Your task to perform on an android device: set an alarm Image 0: 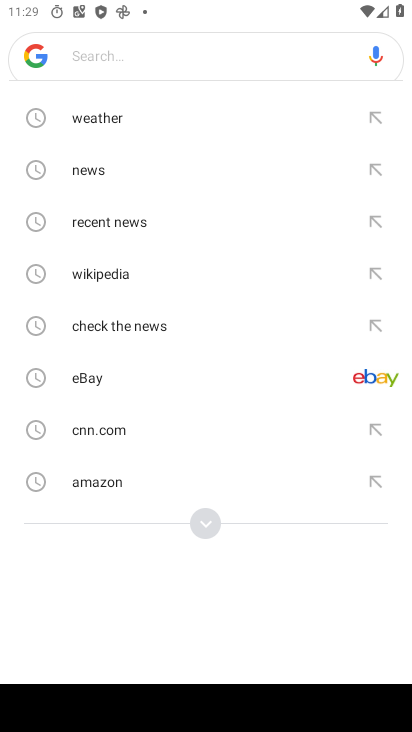
Step 0: press home button
Your task to perform on an android device: set an alarm Image 1: 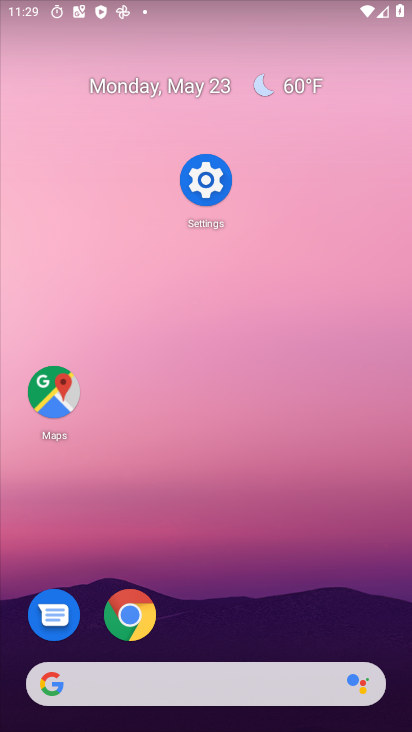
Step 1: drag from (333, 585) to (315, 51)
Your task to perform on an android device: set an alarm Image 2: 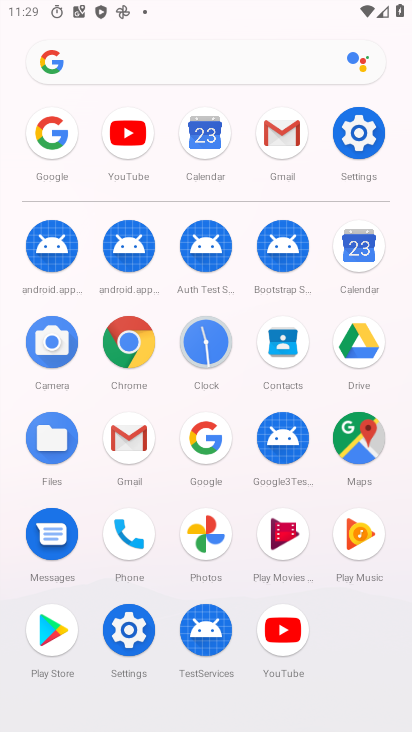
Step 2: click (200, 343)
Your task to perform on an android device: set an alarm Image 3: 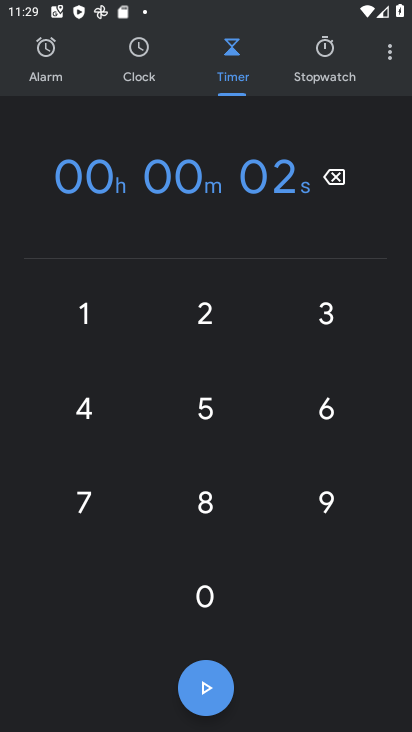
Step 3: click (54, 52)
Your task to perform on an android device: set an alarm Image 4: 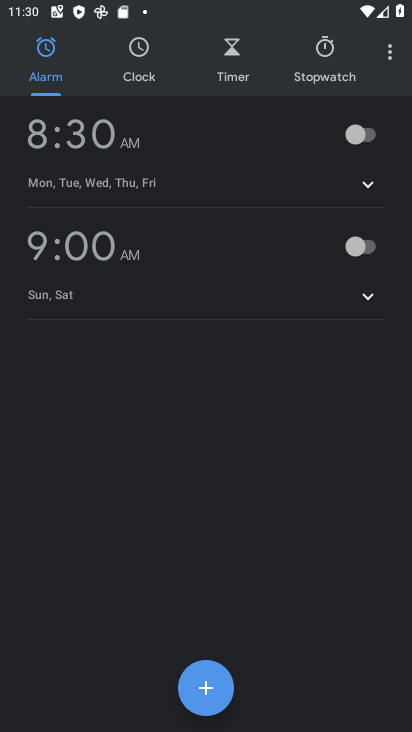
Step 4: click (369, 135)
Your task to perform on an android device: set an alarm Image 5: 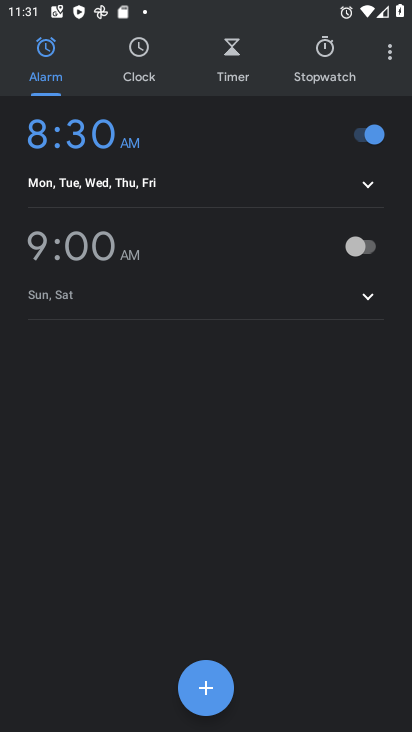
Step 5: task complete